Your task to perform on an android device: turn off javascript in the chrome app Image 0: 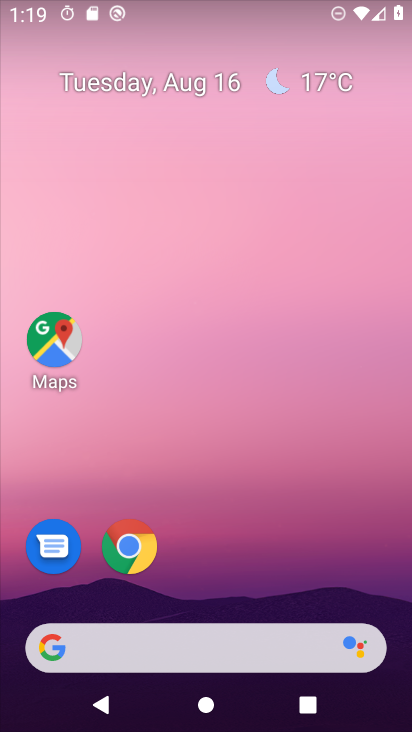
Step 0: drag from (224, 618) to (217, 191)
Your task to perform on an android device: turn off javascript in the chrome app Image 1: 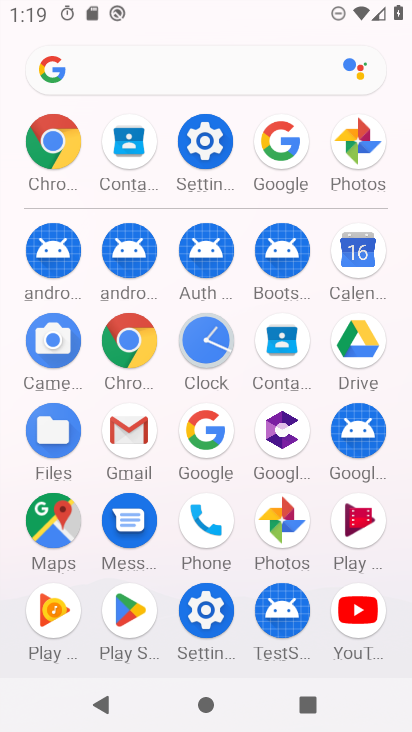
Step 1: click (129, 345)
Your task to perform on an android device: turn off javascript in the chrome app Image 2: 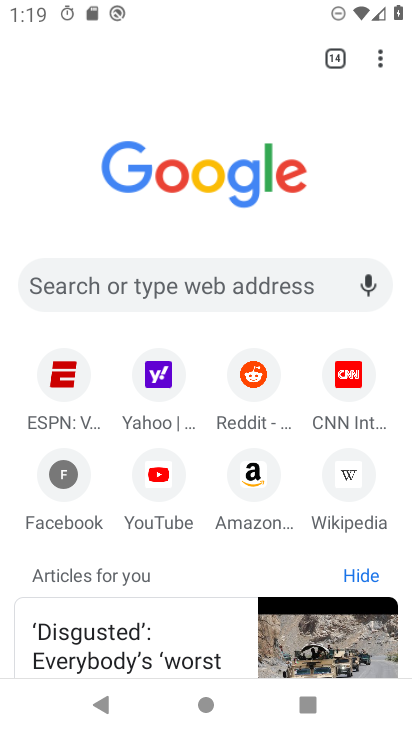
Step 2: drag from (381, 62) to (186, 492)
Your task to perform on an android device: turn off javascript in the chrome app Image 3: 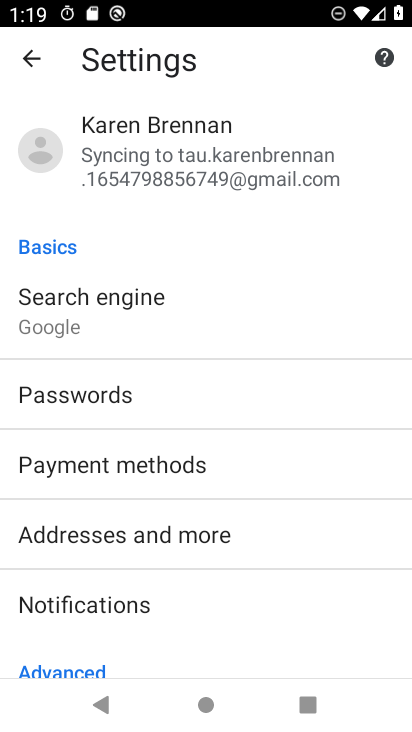
Step 3: drag from (149, 660) to (136, 395)
Your task to perform on an android device: turn off javascript in the chrome app Image 4: 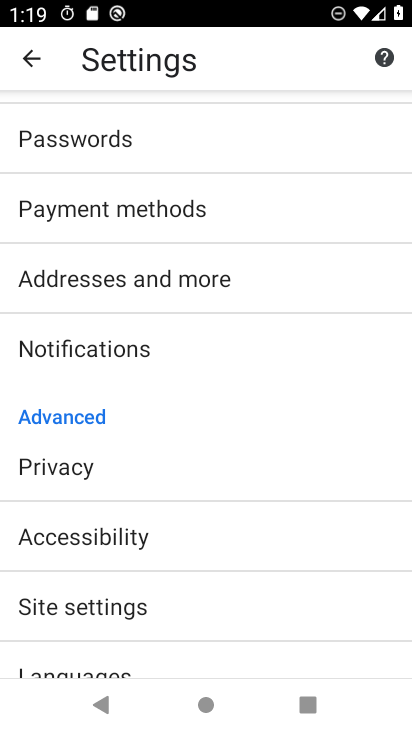
Step 4: click (94, 603)
Your task to perform on an android device: turn off javascript in the chrome app Image 5: 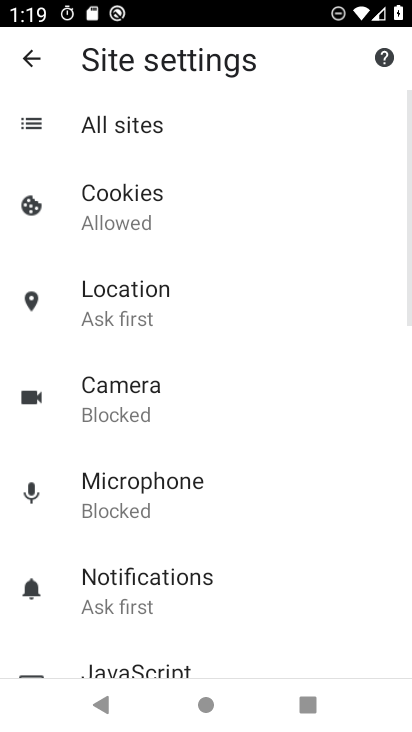
Step 5: drag from (147, 655) to (131, 471)
Your task to perform on an android device: turn off javascript in the chrome app Image 6: 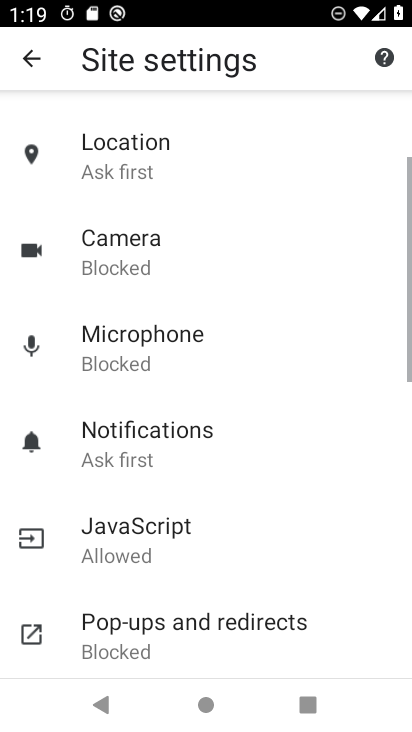
Step 6: click (130, 406)
Your task to perform on an android device: turn off javascript in the chrome app Image 7: 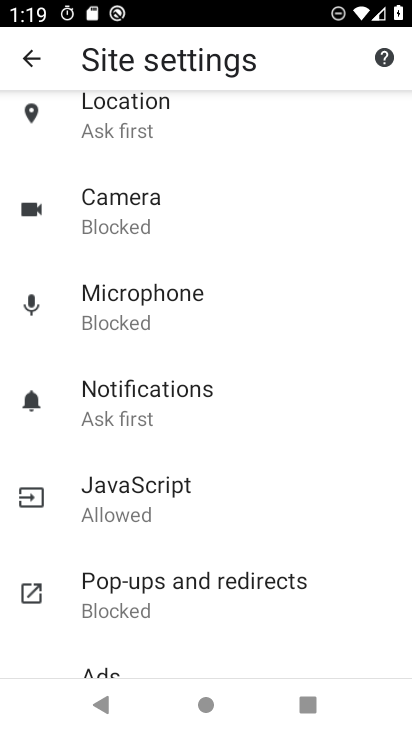
Step 7: click (116, 491)
Your task to perform on an android device: turn off javascript in the chrome app Image 8: 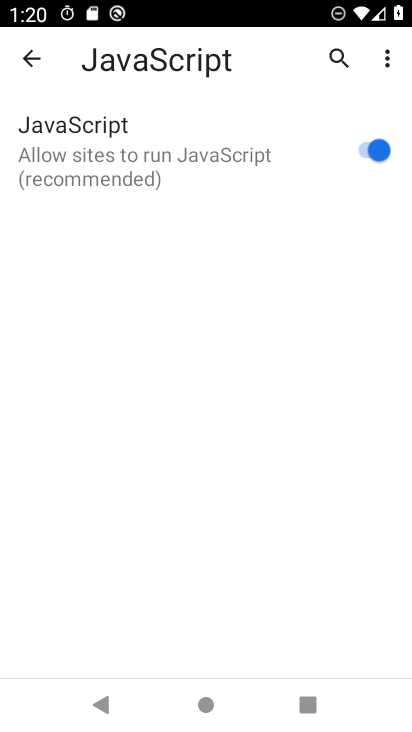
Step 8: click (367, 152)
Your task to perform on an android device: turn off javascript in the chrome app Image 9: 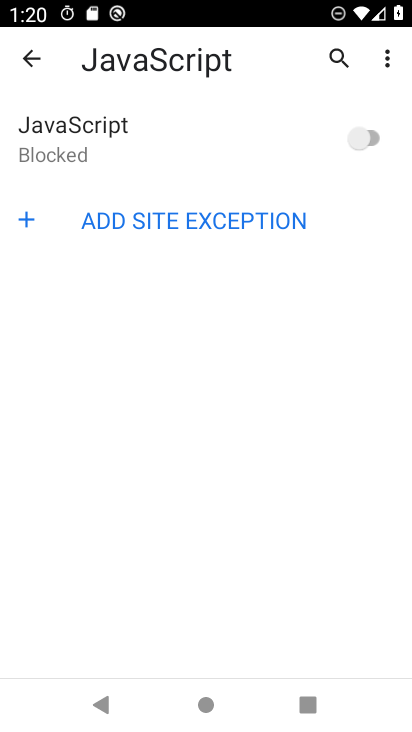
Step 9: press home button
Your task to perform on an android device: turn off javascript in the chrome app Image 10: 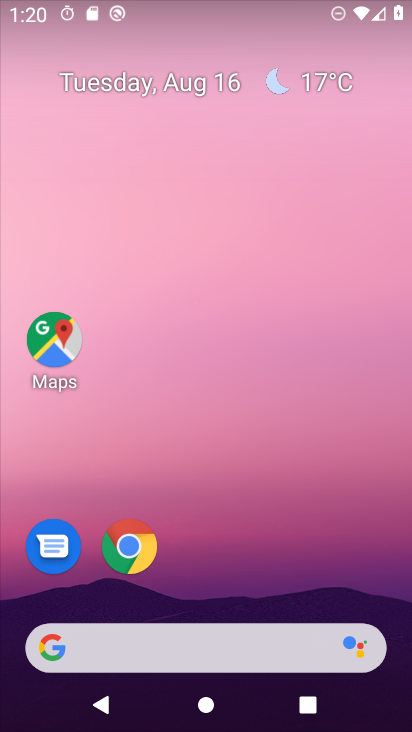
Step 10: click (128, 548)
Your task to perform on an android device: turn off javascript in the chrome app Image 11: 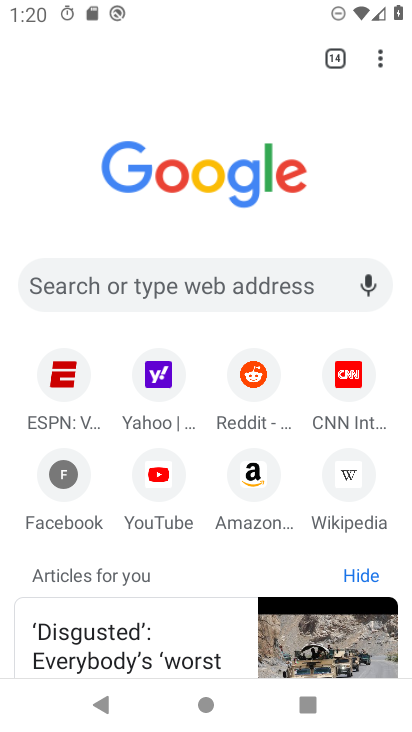
Step 11: drag from (379, 59) to (160, 494)
Your task to perform on an android device: turn off javascript in the chrome app Image 12: 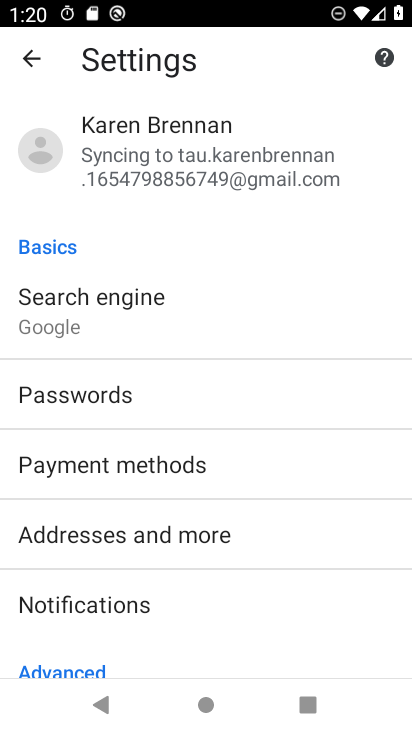
Step 12: drag from (136, 639) to (143, 333)
Your task to perform on an android device: turn off javascript in the chrome app Image 13: 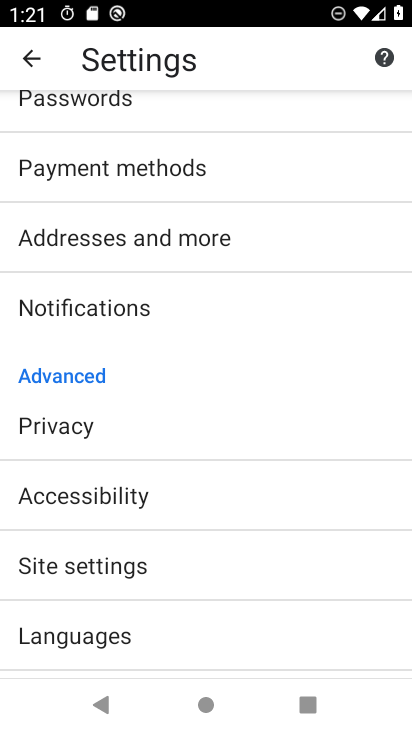
Step 13: click (99, 564)
Your task to perform on an android device: turn off javascript in the chrome app Image 14: 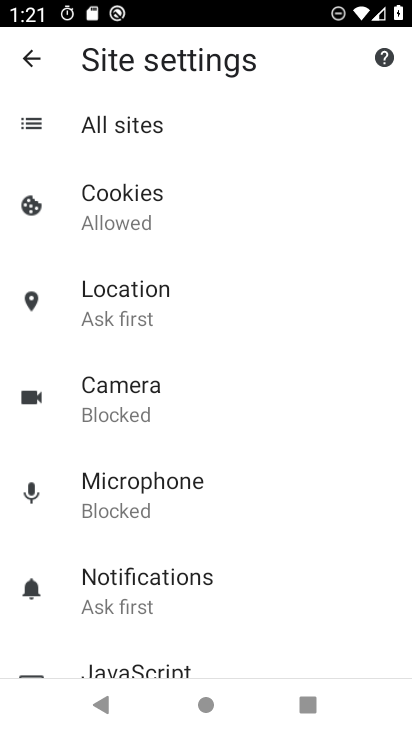
Step 14: click (126, 660)
Your task to perform on an android device: turn off javascript in the chrome app Image 15: 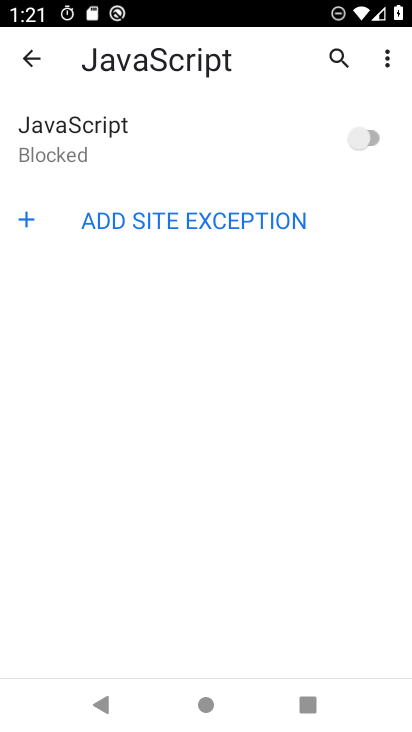
Step 15: task complete